Your task to perform on an android device: Open Google Image 0: 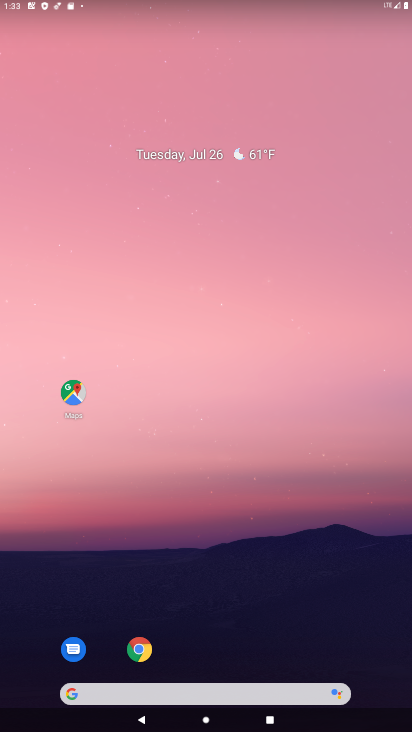
Step 0: click (143, 701)
Your task to perform on an android device: Open Google Image 1: 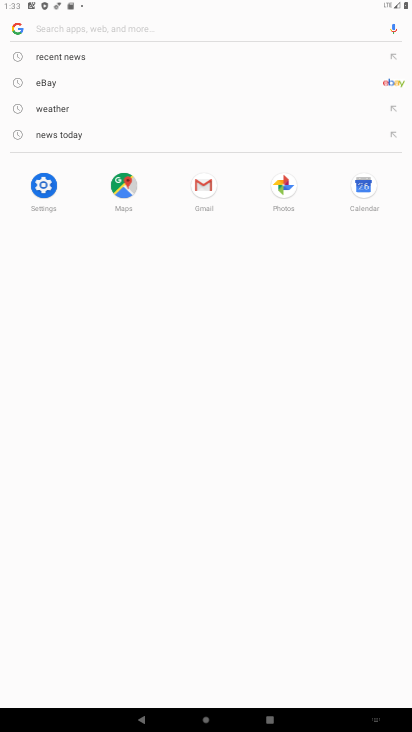
Step 1: task complete